Your task to perform on an android device: change the clock display to show seconds Image 0: 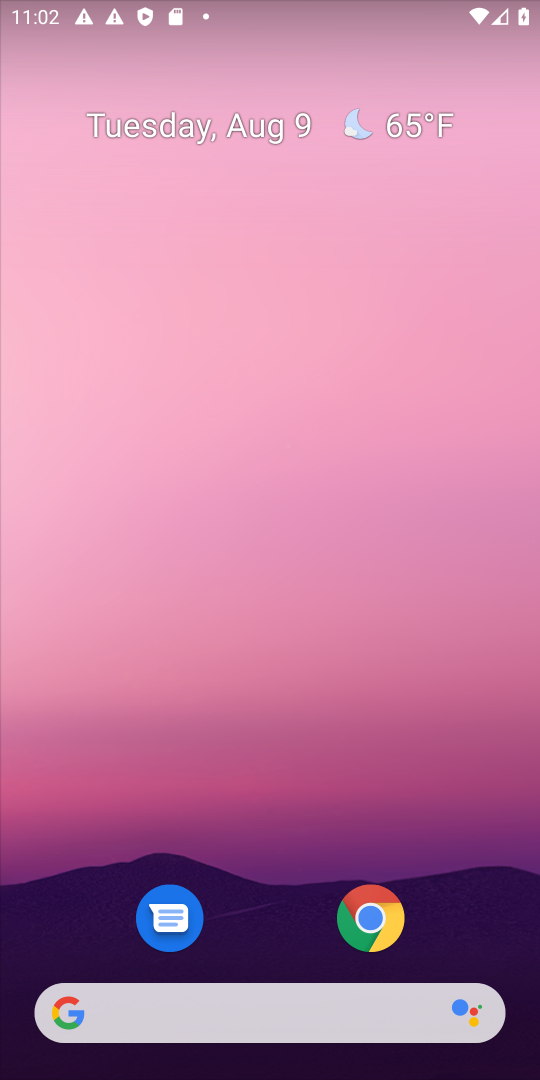
Step 0: drag from (236, 628) to (243, 124)
Your task to perform on an android device: change the clock display to show seconds Image 1: 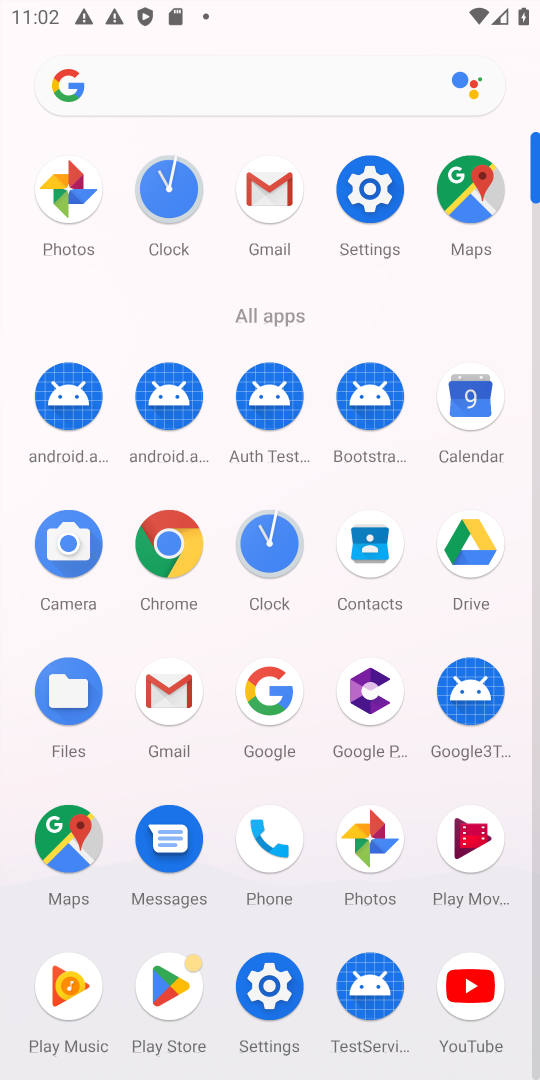
Step 1: click (272, 519)
Your task to perform on an android device: change the clock display to show seconds Image 2: 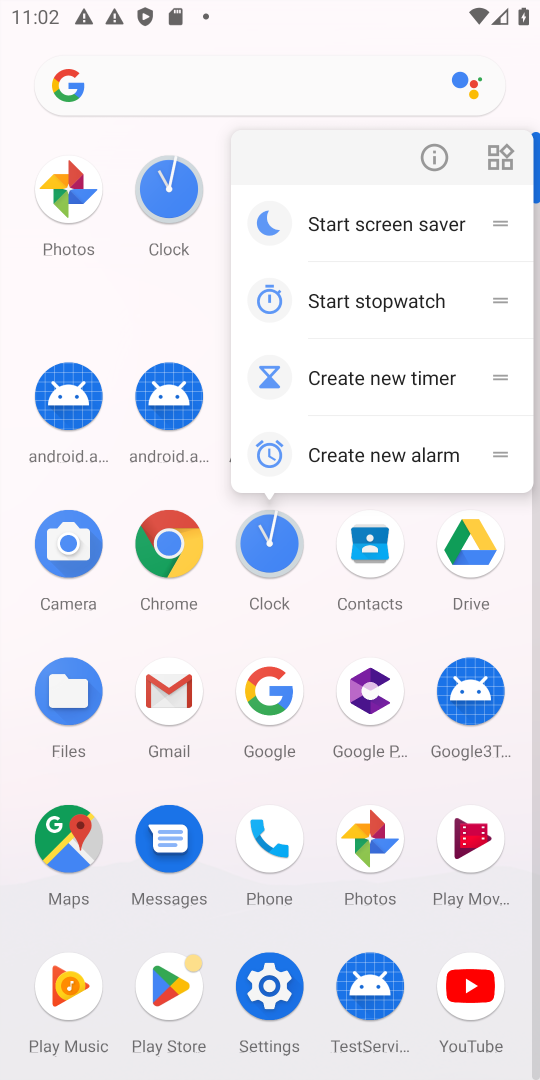
Step 2: click (257, 538)
Your task to perform on an android device: change the clock display to show seconds Image 3: 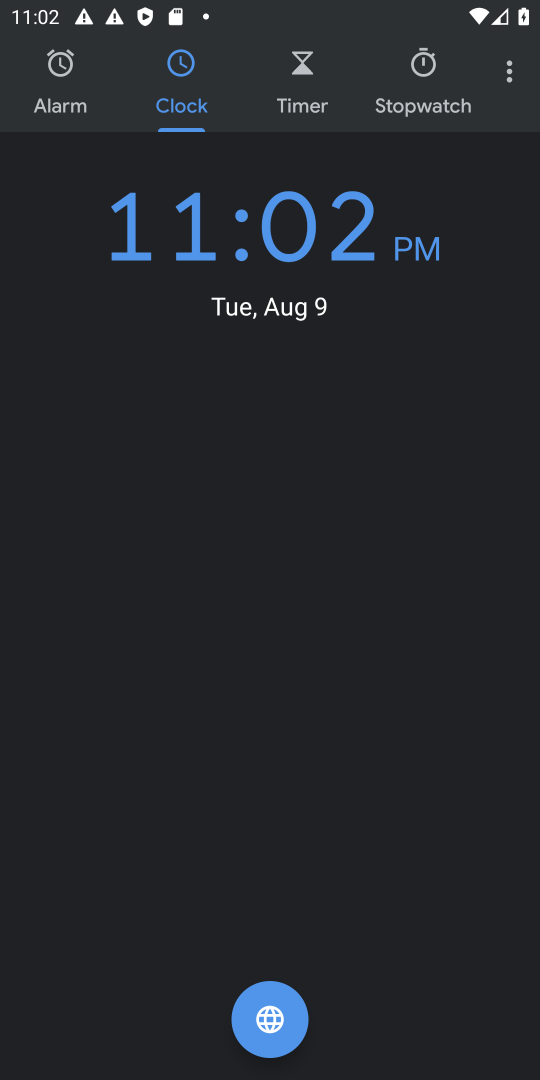
Step 3: click (514, 60)
Your task to perform on an android device: change the clock display to show seconds Image 4: 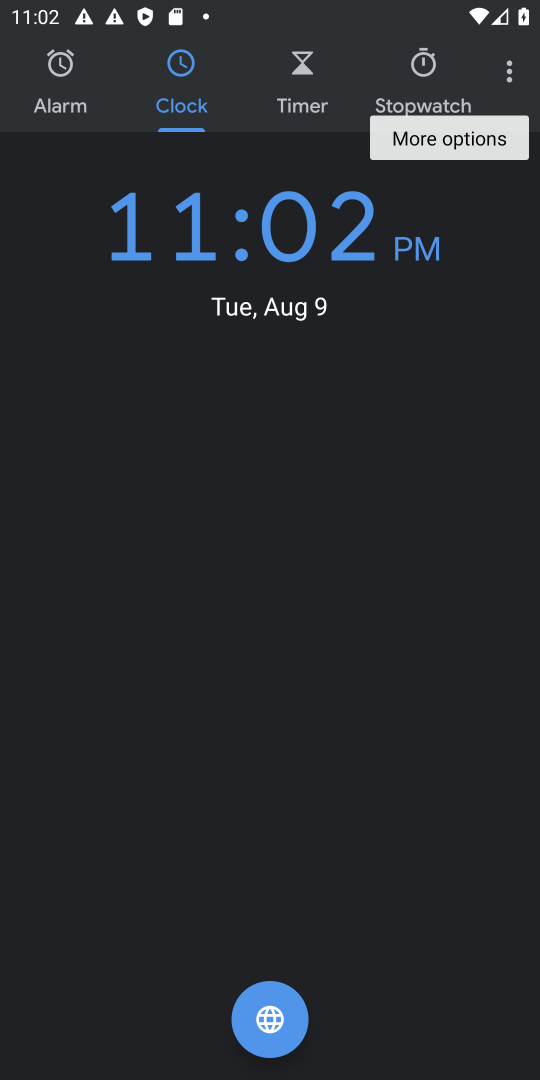
Step 4: click (518, 73)
Your task to perform on an android device: change the clock display to show seconds Image 5: 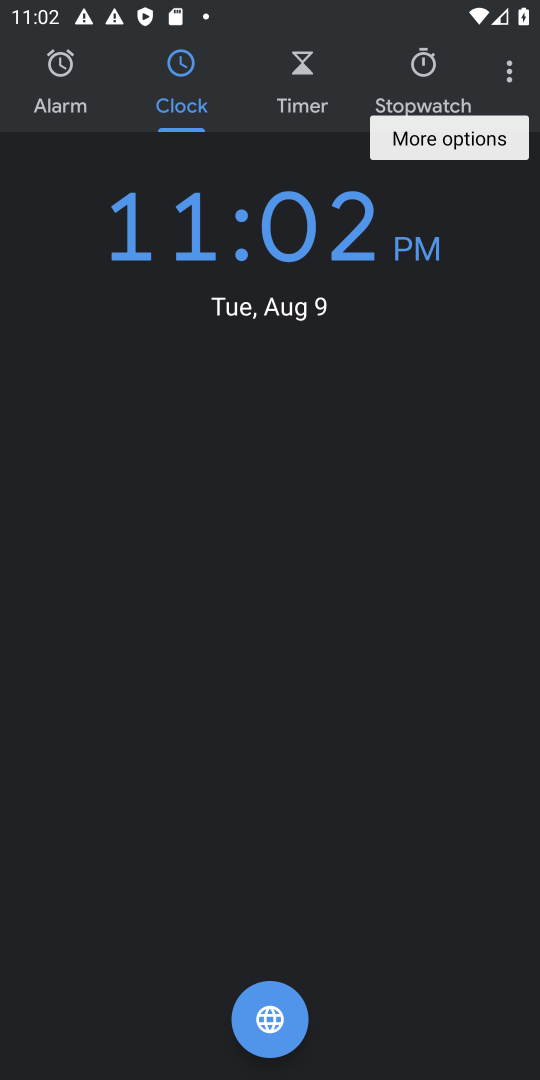
Step 5: click (518, 73)
Your task to perform on an android device: change the clock display to show seconds Image 6: 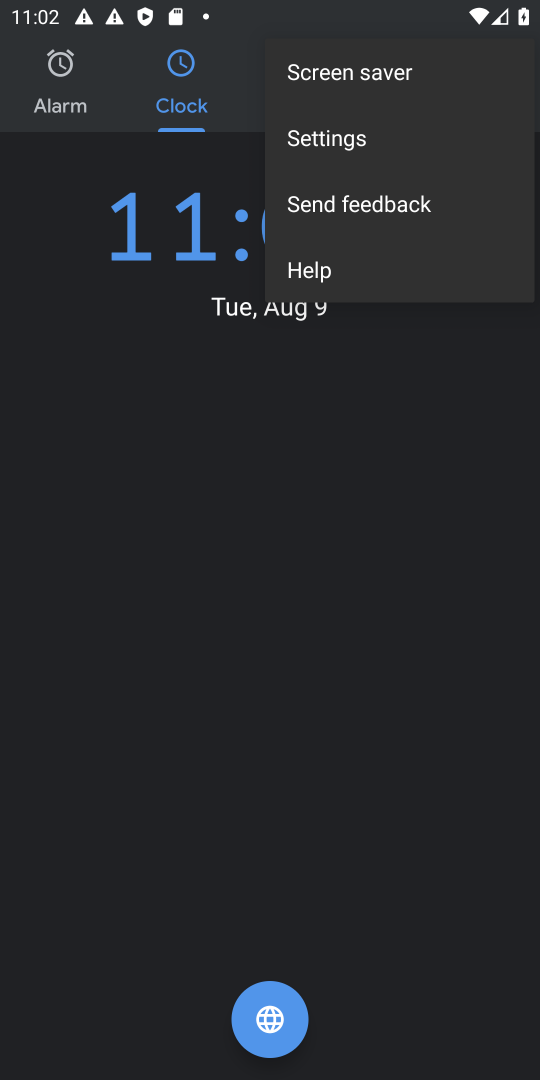
Step 6: click (356, 138)
Your task to perform on an android device: change the clock display to show seconds Image 7: 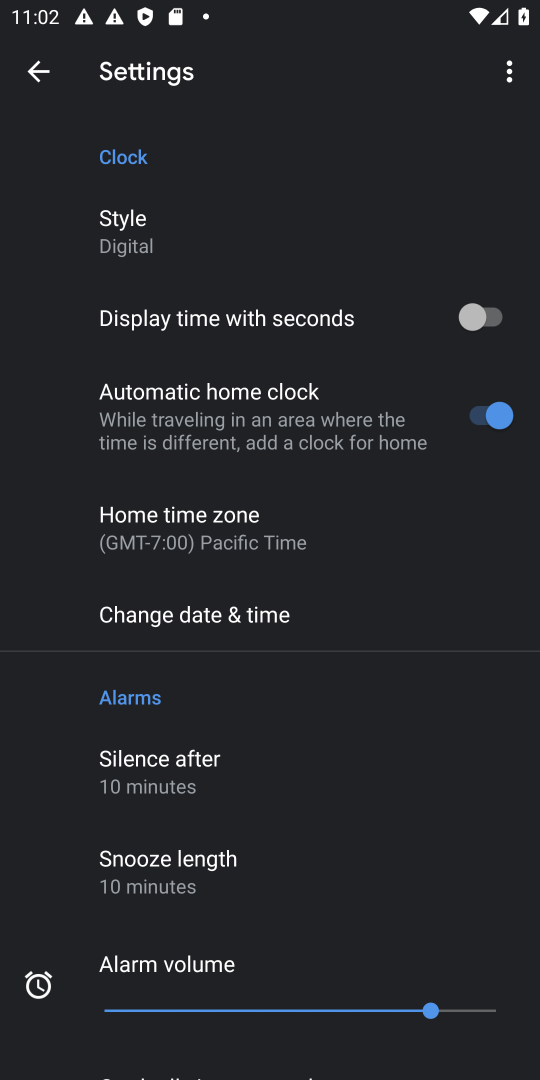
Step 7: click (236, 621)
Your task to perform on an android device: change the clock display to show seconds Image 8: 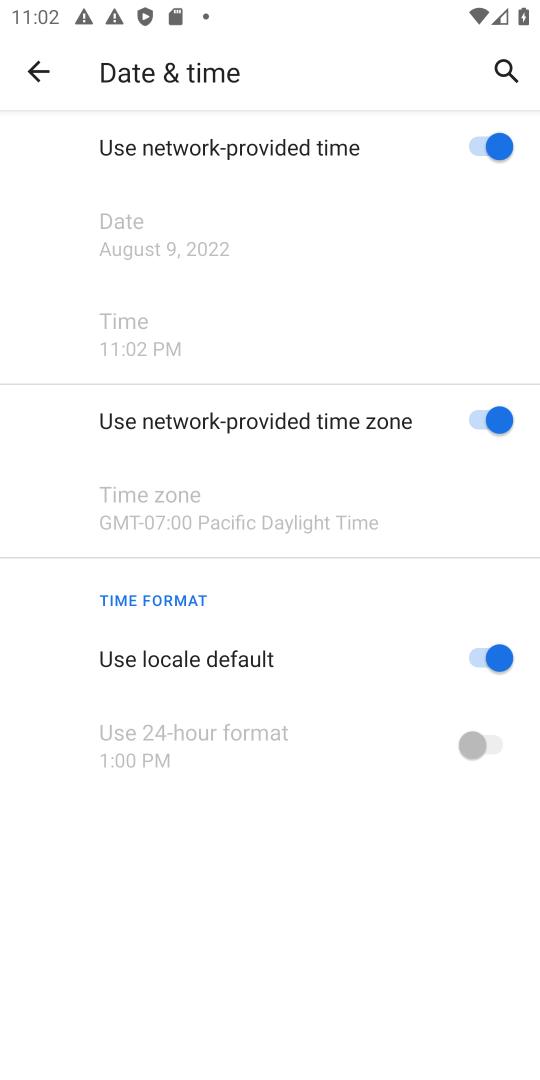
Step 8: click (39, 82)
Your task to perform on an android device: change the clock display to show seconds Image 9: 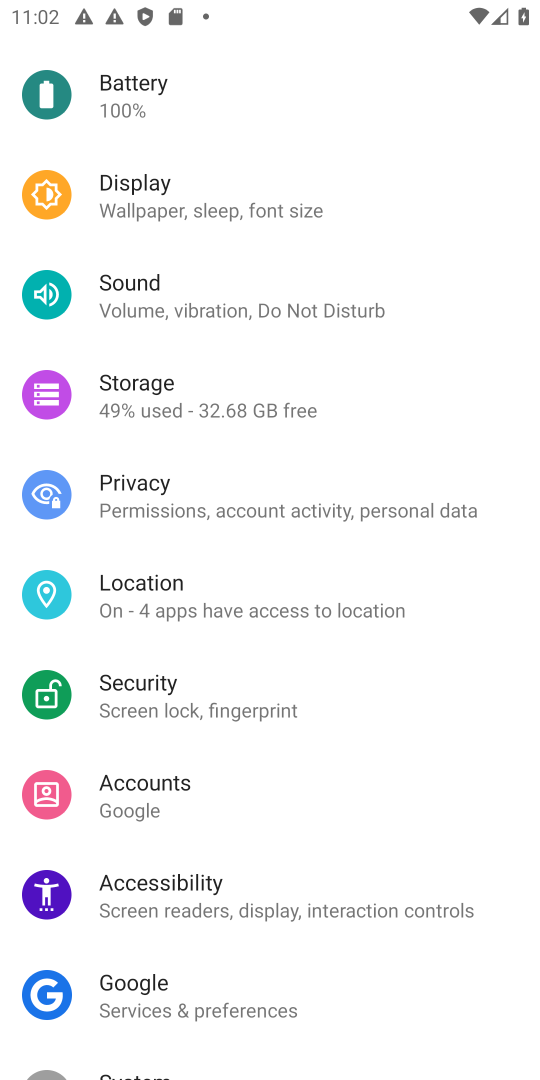
Step 9: press back button
Your task to perform on an android device: change the clock display to show seconds Image 10: 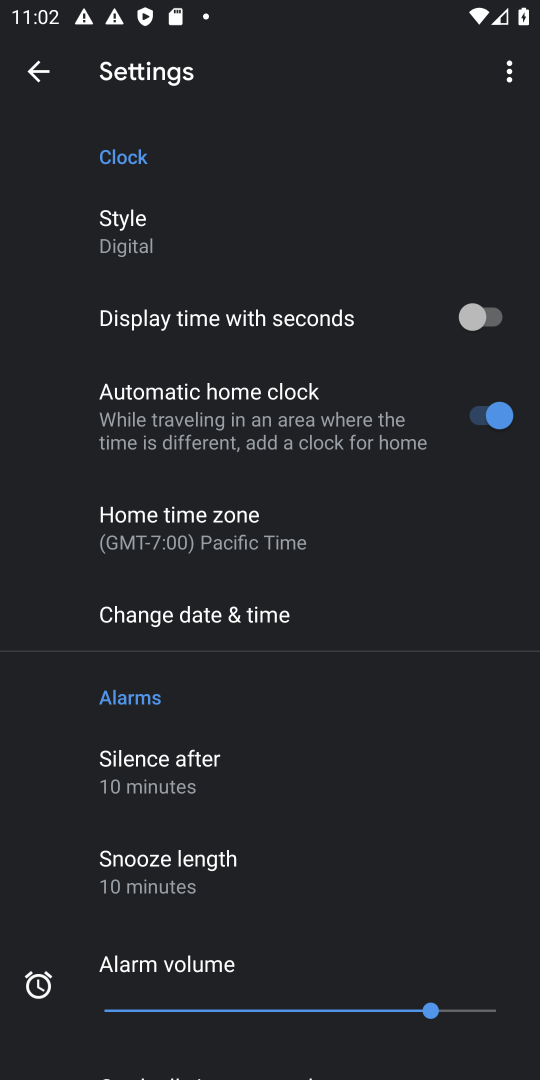
Step 10: click (499, 313)
Your task to perform on an android device: change the clock display to show seconds Image 11: 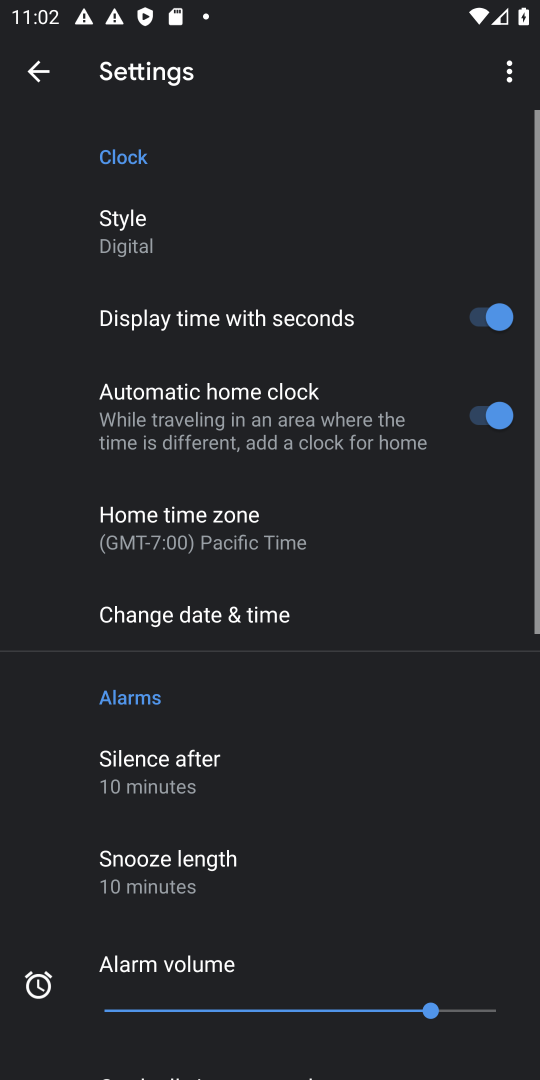
Step 11: task complete